Your task to perform on an android device: open app "Google Keep" Image 0: 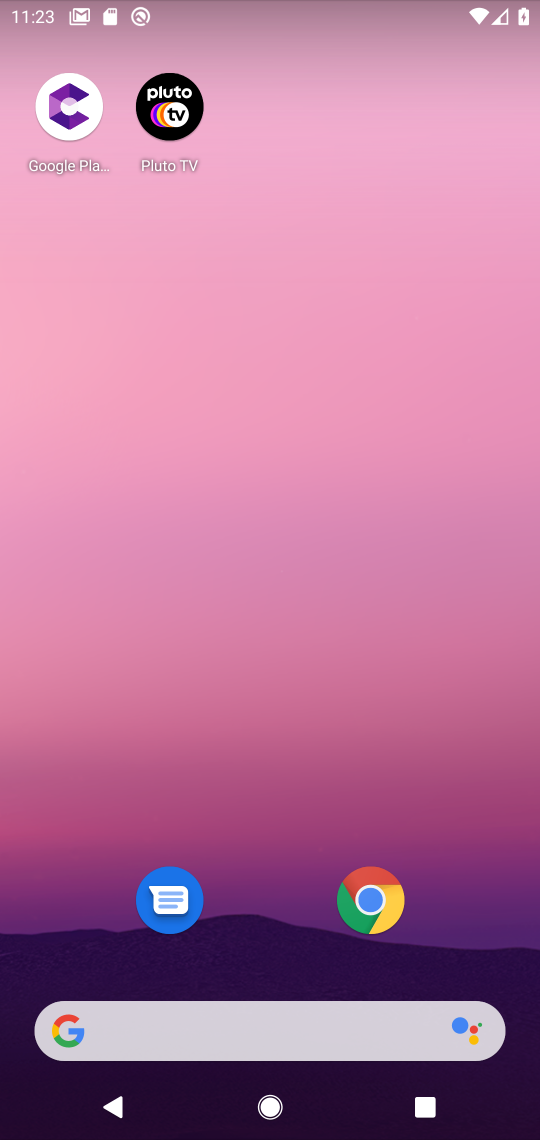
Step 0: drag from (247, 949) to (243, 74)
Your task to perform on an android device: open app "Google Keep" Image 1: 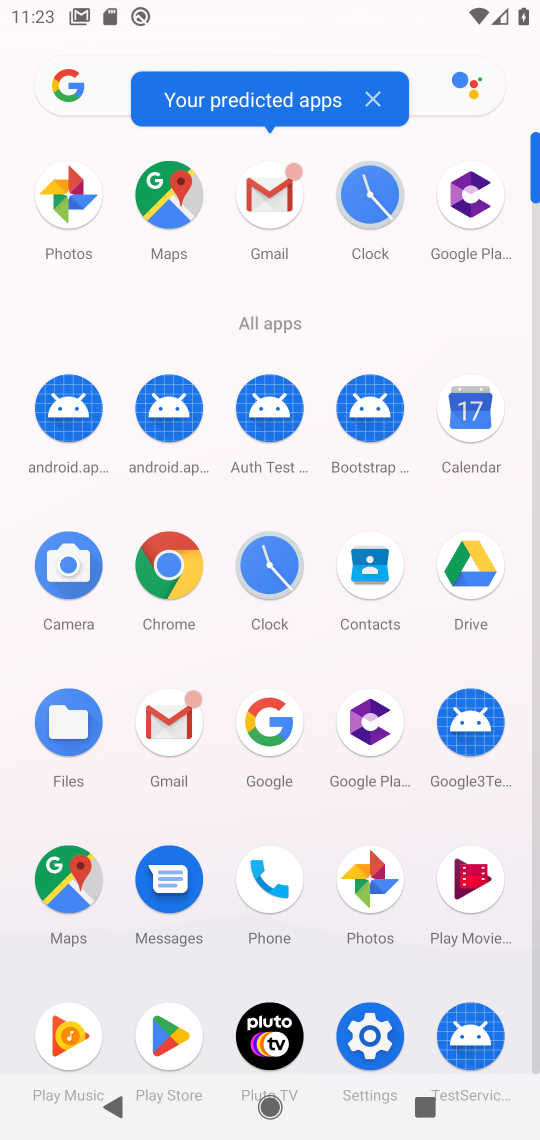
Step 1: click (154, 1040)
Your task to perform on an android device: open app "Google Keep" Image 2: 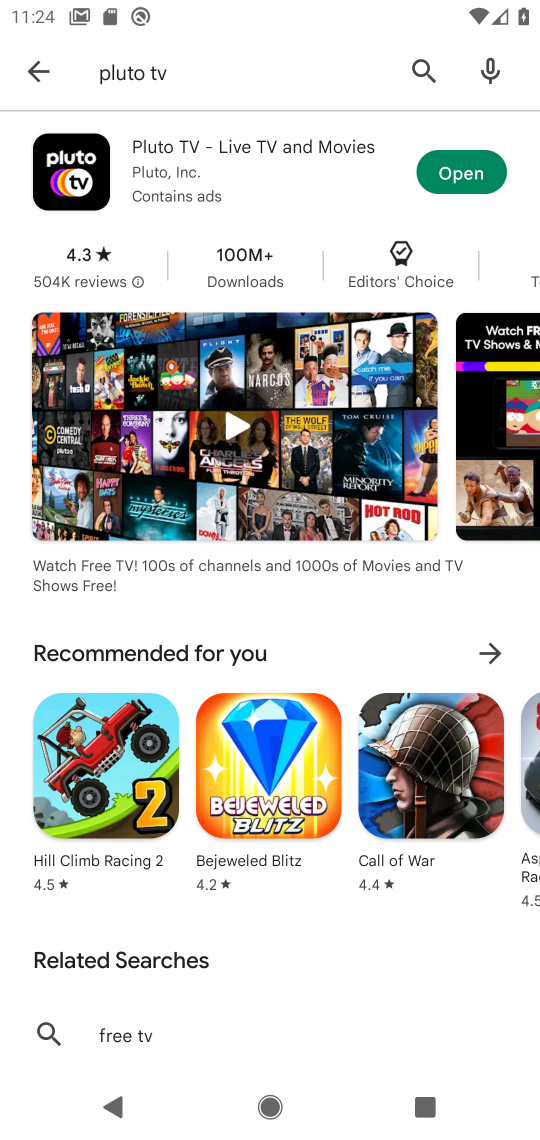
Step 2: click (426, 66)
Your task to perform on an android device: open app "Google Keep" Image 3: 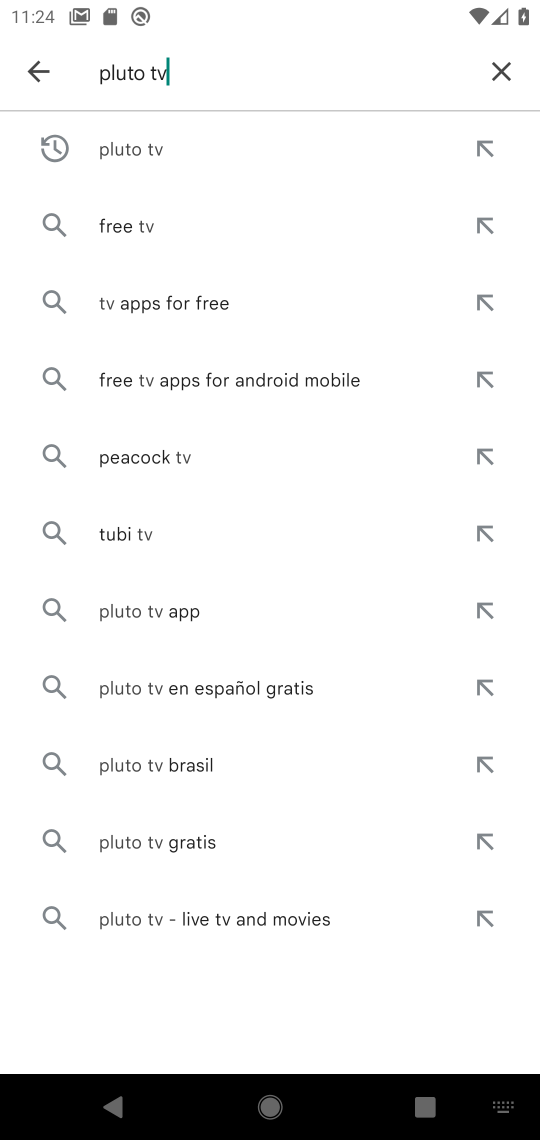
Step 3: click (497, 63)
Your task to perform on an android device: open app "Google Keep" Image 4: 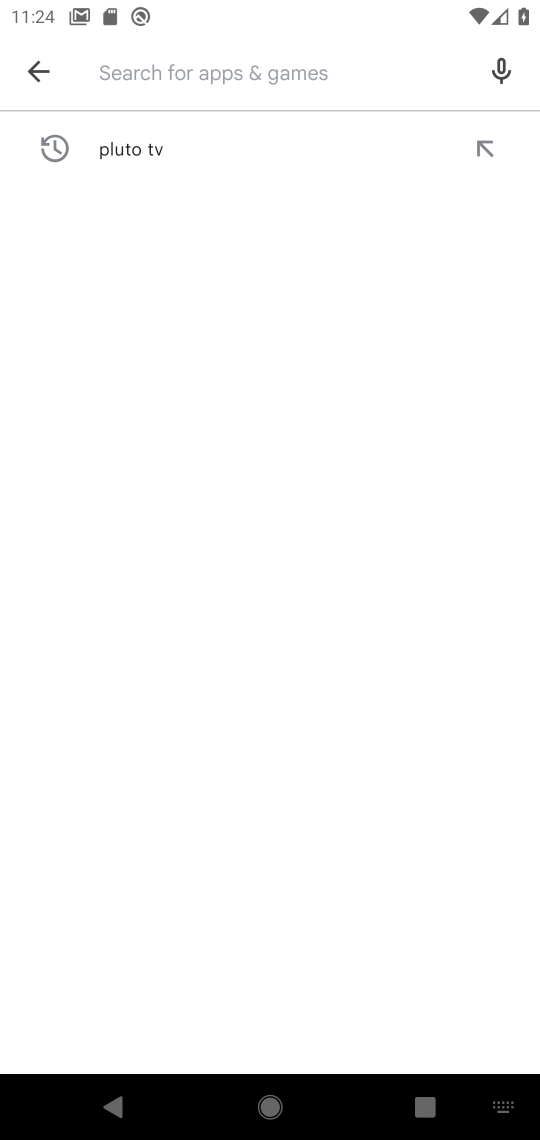
Step 4: click (224, 66)
Your task to perform on an android device: open app "Google Keep" Image 5: 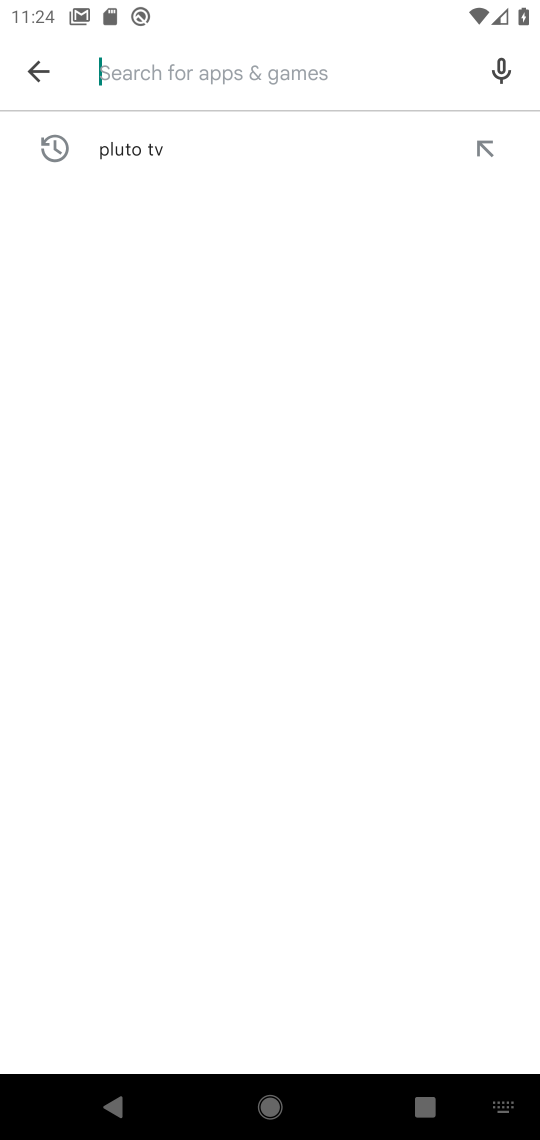
Step 5: type "goggle keep"
Your task to perform on an android device: open app "Google Keep" Image 6: 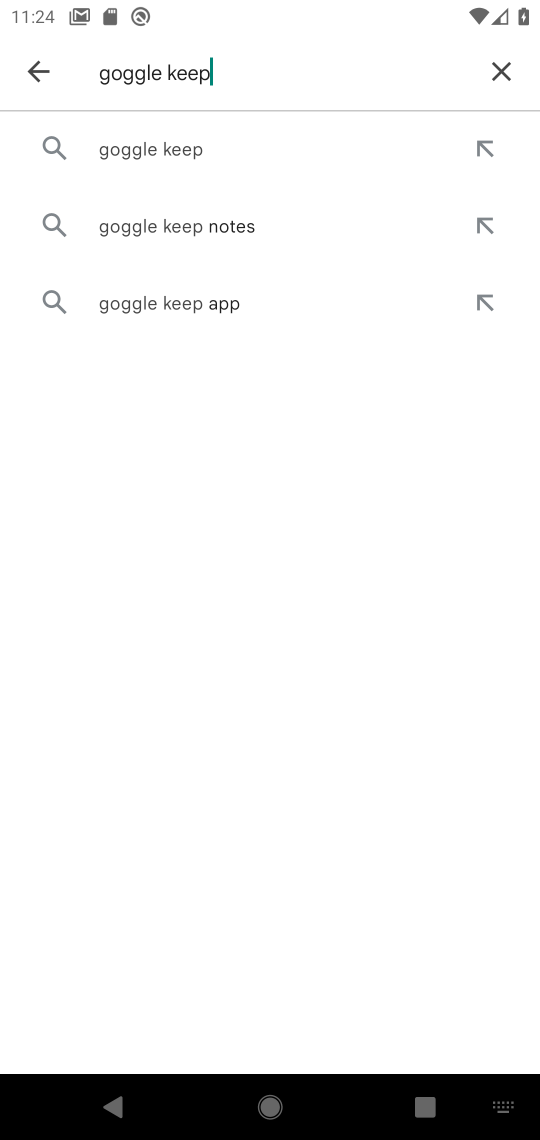
Step 6: click (207, 136)
Your task to perform on an android device: open app "Google Keep" Image 7: 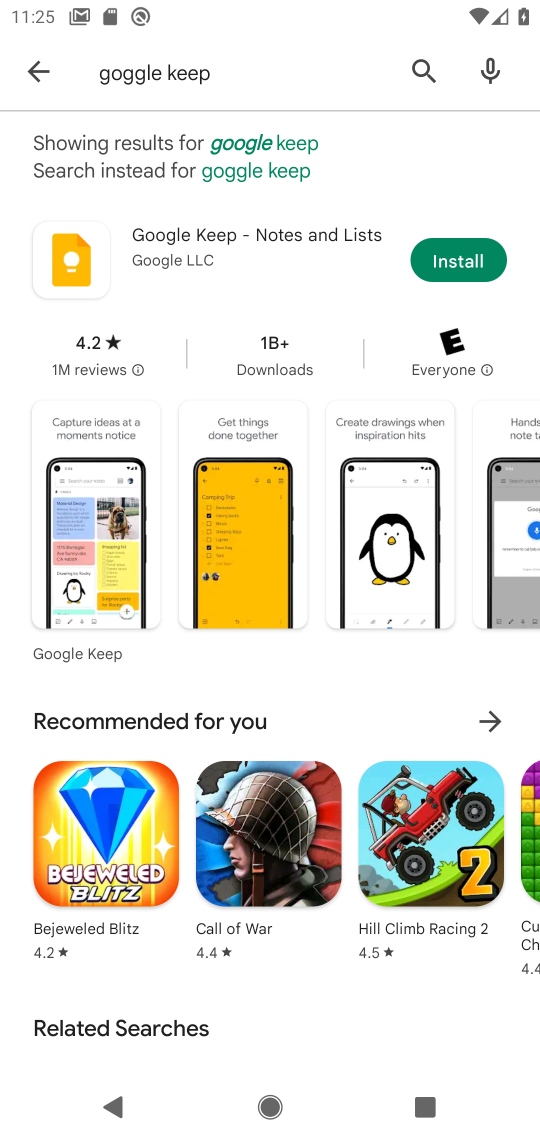
Step 7: task complete